Your task to perform on an android device: set the timer Image 0: 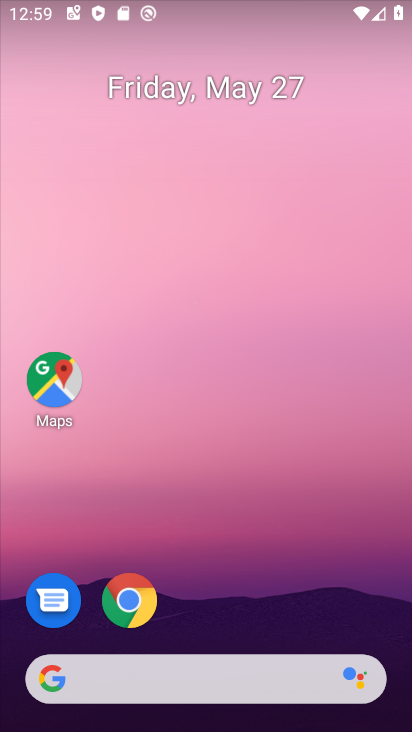
Step 0: drag from (290, 588) to (330, 143)
Your task to perform on an android device: set the timer Image 1: 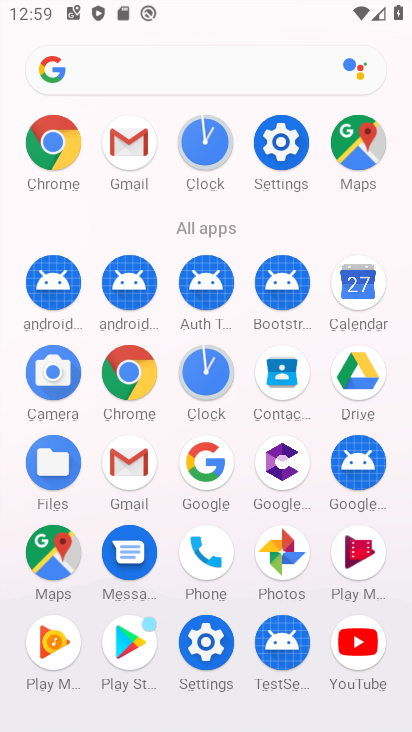
Step 1: click (179, 128)
Your task to perform on an android device: set the timer Image 2: 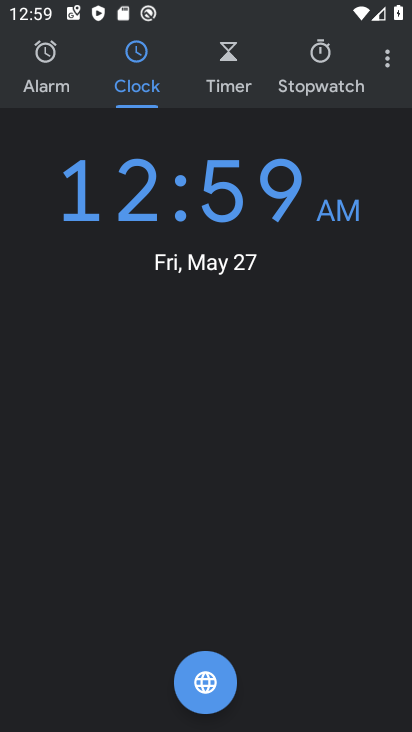
Step 2: click (240, 59)
Your task to perform on an android device: set the timer Image 3: 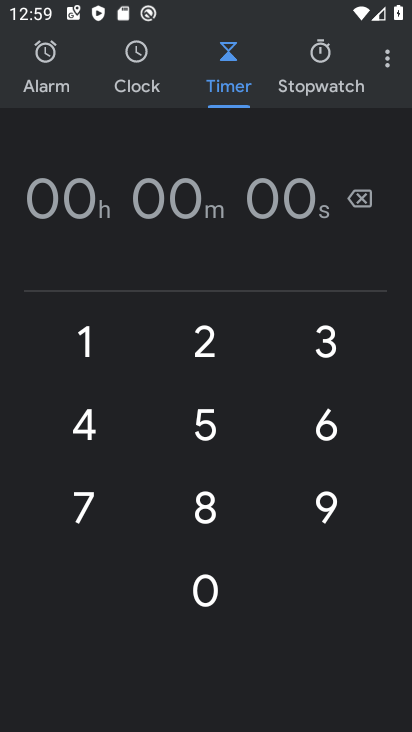
Step 3: click (92, 319)
Your task to perform on an android device: set the timer Image 4: 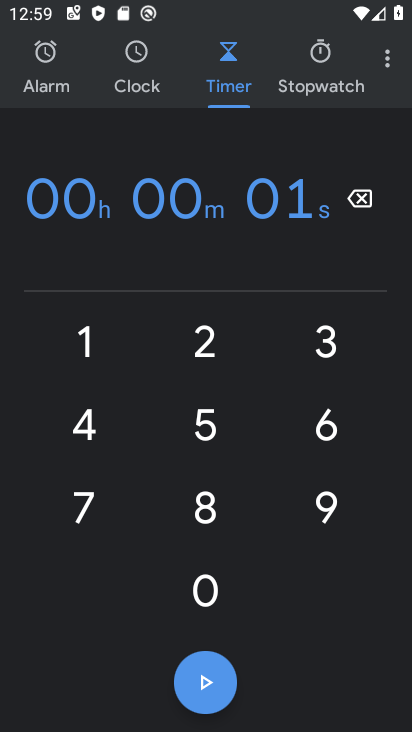
Step 4: click (356, 206)
Your task to perform on an android device: set the timer Image 5: 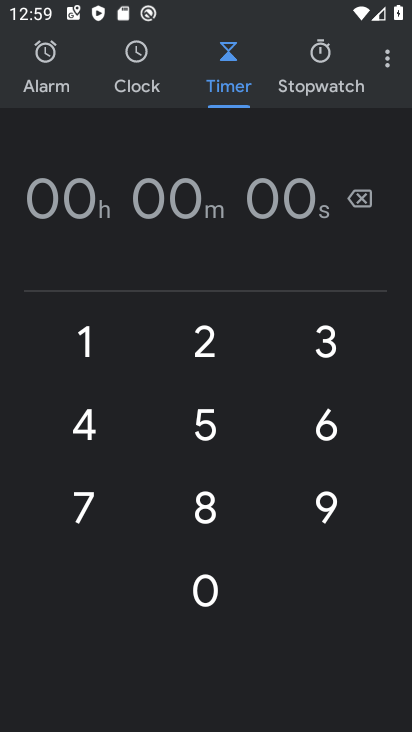
Step 5: click (192, 434)
Your task to perform on an android device: set the timer Image 6: 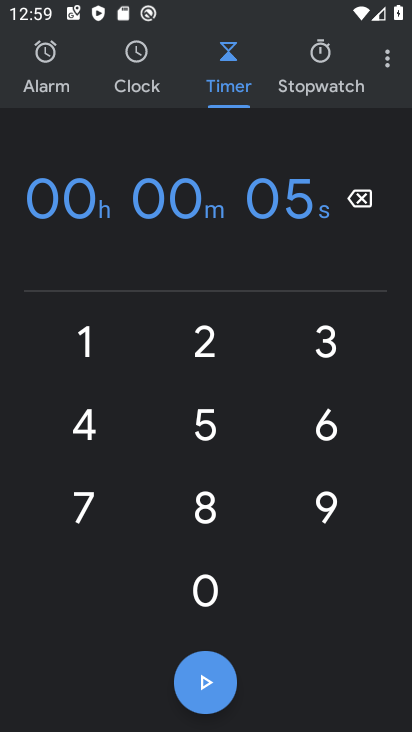
Step 6: click (335, 504)
Your task to perform on an android device: set the timer Image 7: 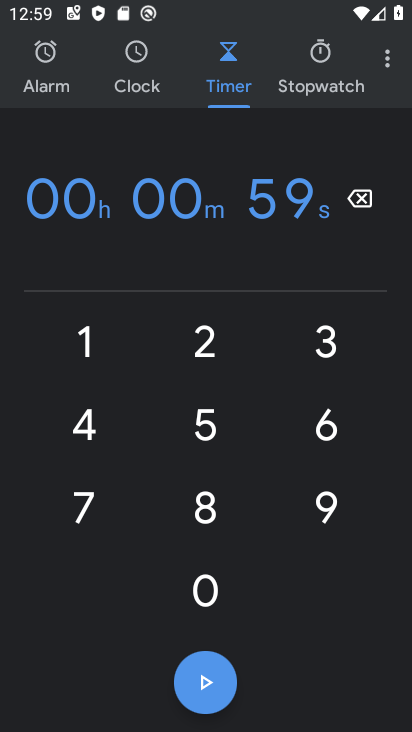
Step 7: click (211, 335)
Your task to perform on an android device: set the timer Image 8: 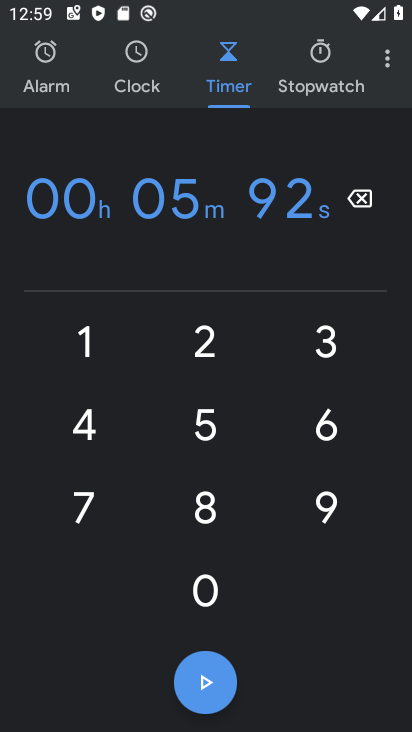
Step 8: click (210, 556)
Your task to perform on an android device: set the timer Image 9: 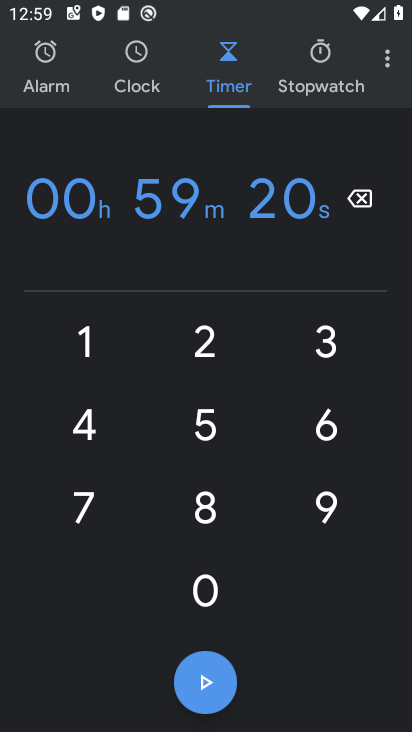
Step 9: click (357, 204)
Your task to perform on an android device: set the timer Image 10: 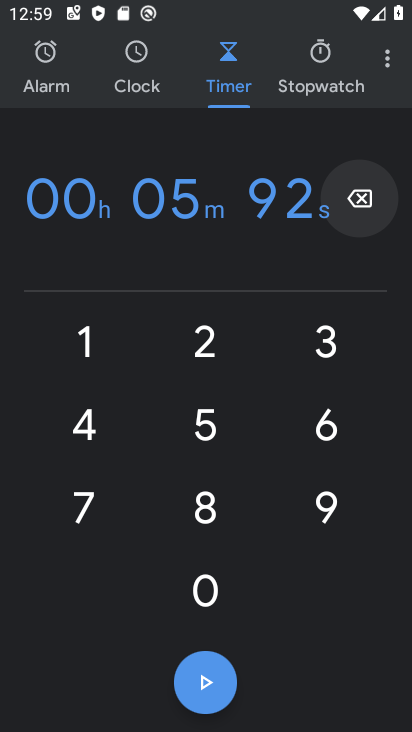
Step 10: click (357, 204)
Your task to perform on an android device: set the timer Image 11: 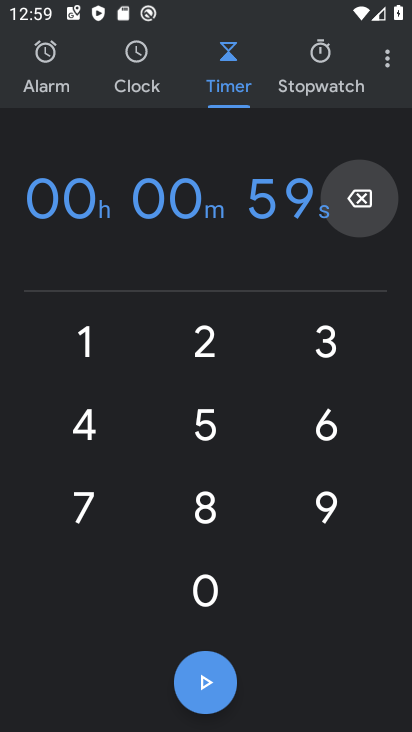
Step 11: click (357, 204)
Your task to perform on an android device: set the timer Image 12: 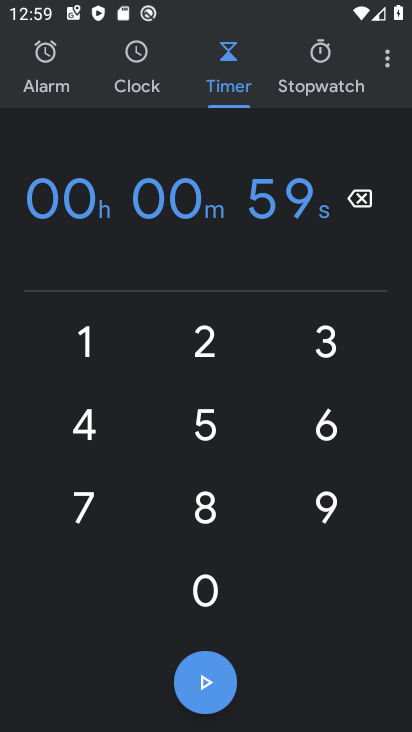
Step 12: click (357, 204)
Your task to perform on an android device: set the timer Image 13: 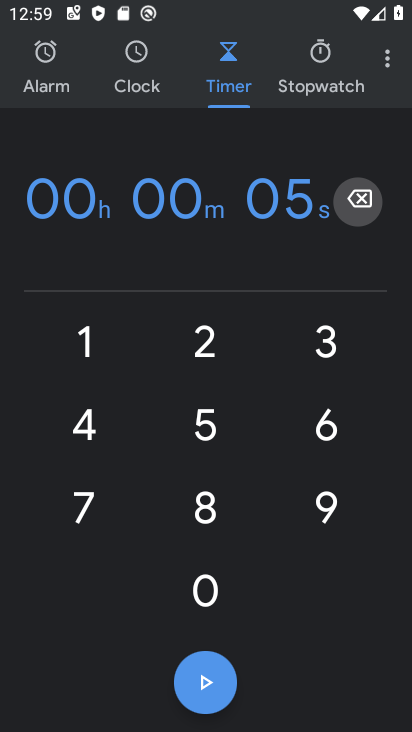
Step 13: click (357, 204)
Your task to perform on an android device: set the timer Image 14: 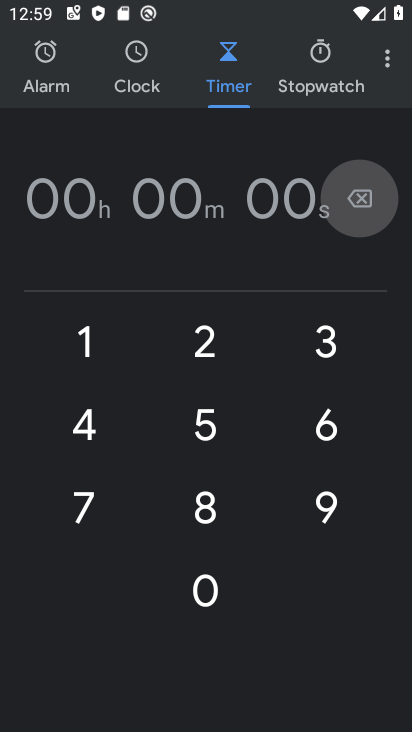
Step 14: click (357, 204)
Your task to perform on an android device: set the timer Image 15: 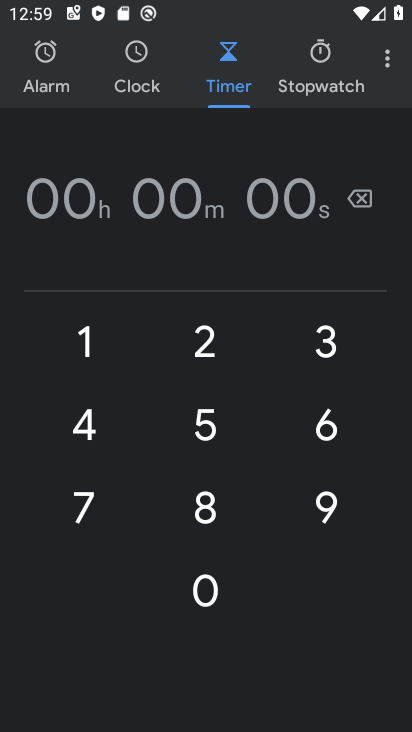
Step 15: click (357, 204)
Your task to perform on an android device: set the timer Image 16: 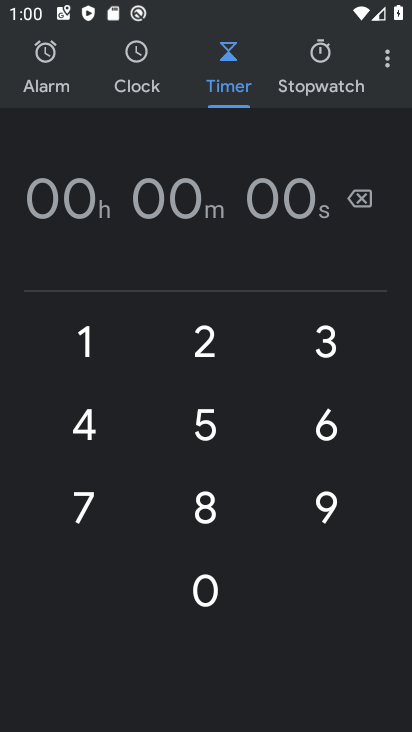
Step 16: click (99, 333)
Your task to perform on an android device: set the timer Image 17: 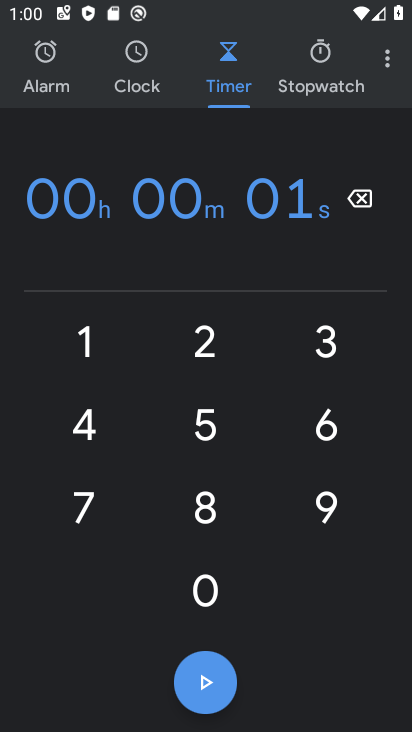
Step 17: click (97, 323)
Your task to perform on an android device: set the timer Image 18: 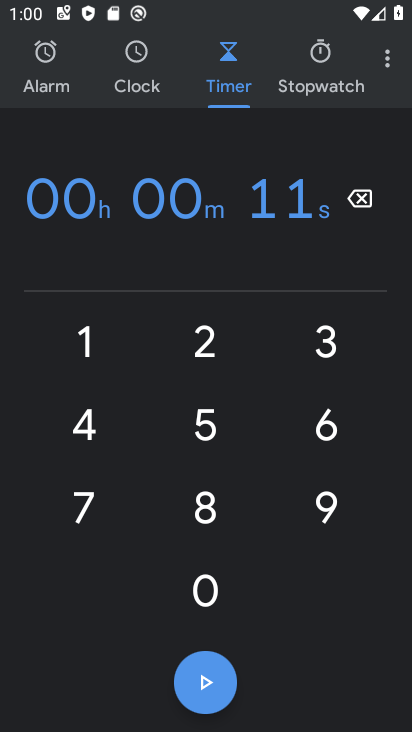
Step 18: click (207, 417)
Your task to perform on an android device: set the timer Image 19: 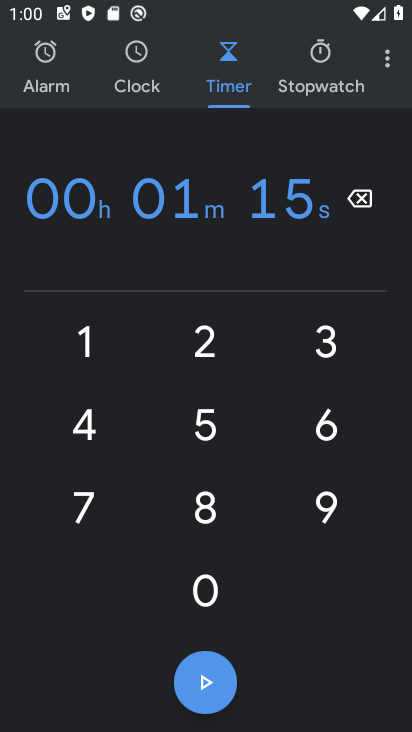
Step 19: click (320, 413)
Your task to perform on an android device: set the timer Image 20: 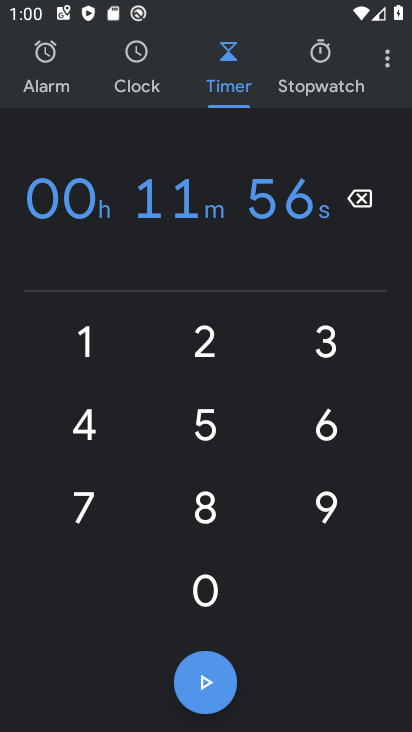
Step 20: click (206, 571)
Your task to perform on an android device: set the timer Image 21: 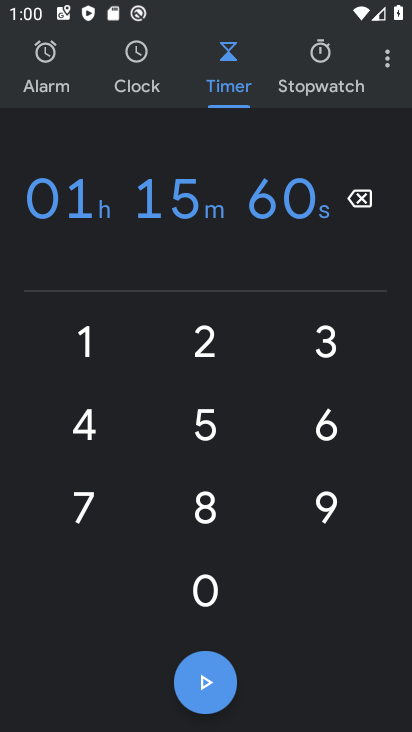
Step 21: click (204, 688)
Your task to perform on an android device: set the timer Image 22: 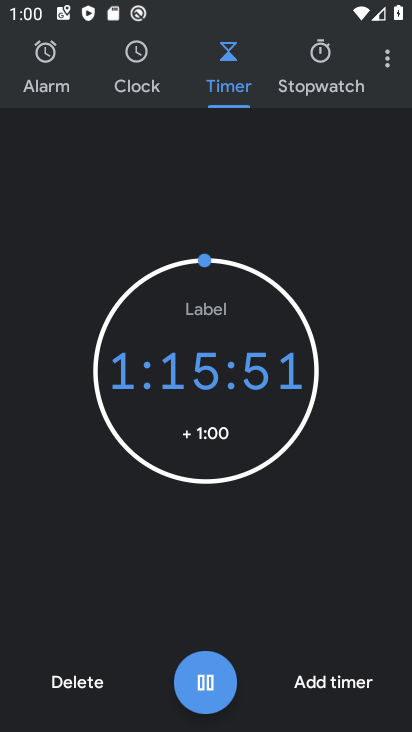
Step 22: task complete